Your task to perform on an android device: Show me popular games on the Play Store Image 0: 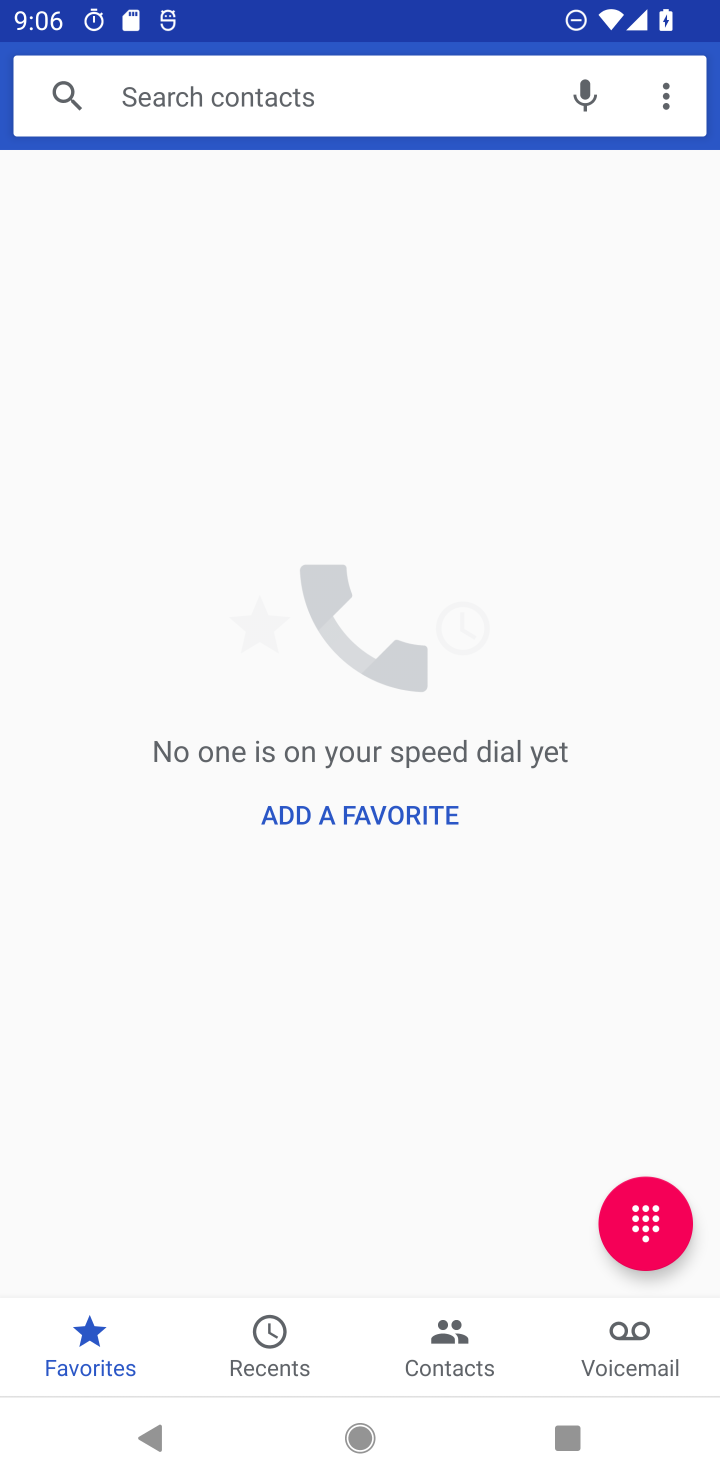
Step 0: press home button
Your task to perform on an android device: Show me popular games on the Play Store Image 1: 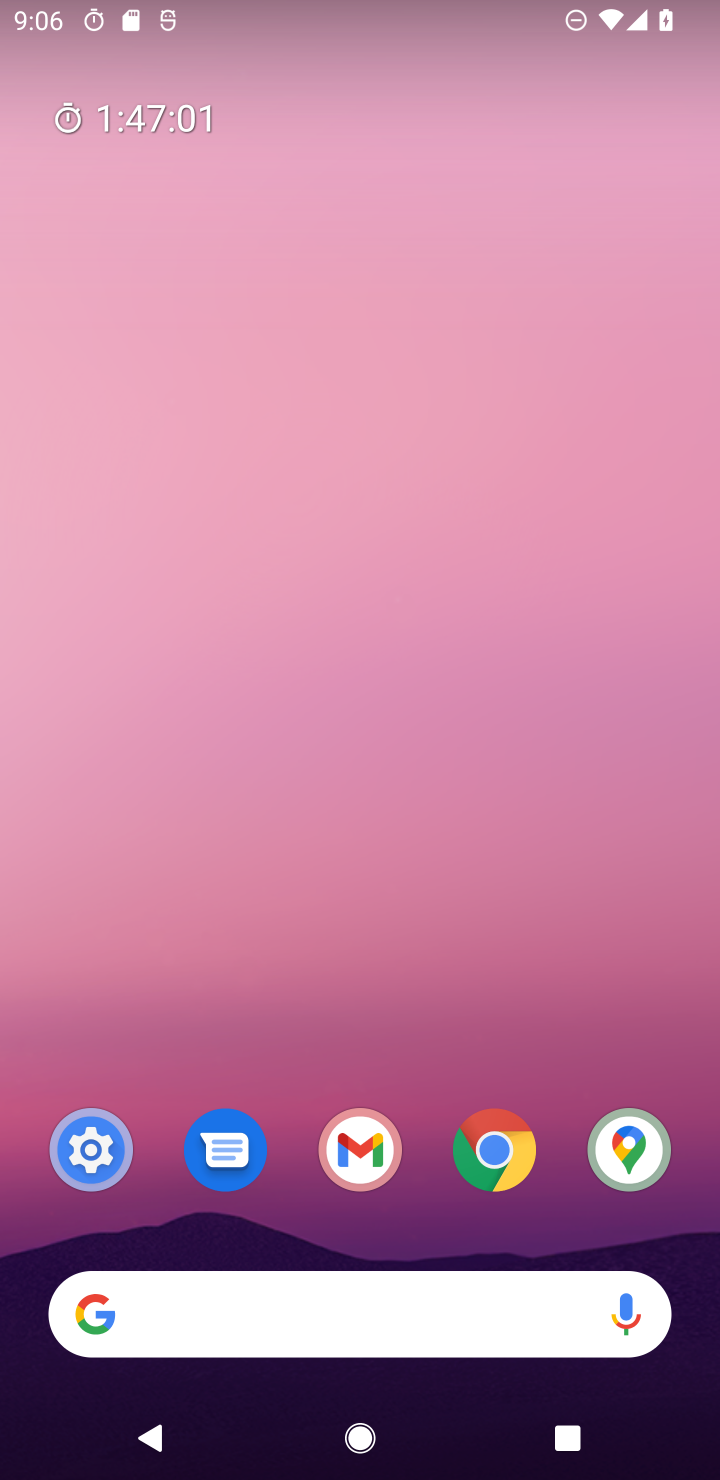
Step 1: drag from (335, 1311) to (608, 33)
Your task to perform on an android device: Show me popular games on the Play Store Image 2: 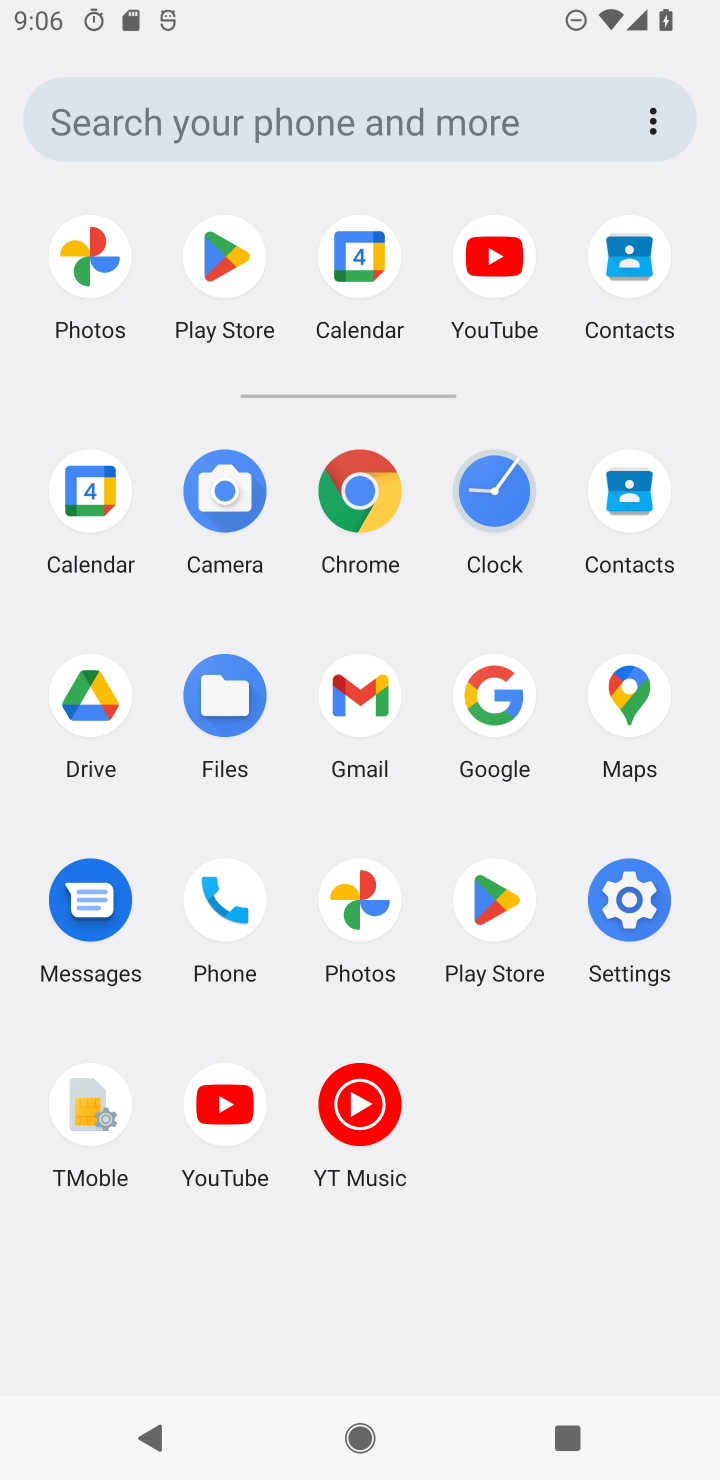
Step 2: click (505, 885)
Your task to perform on an android device: Show me popular games on the Play Store Image 3: 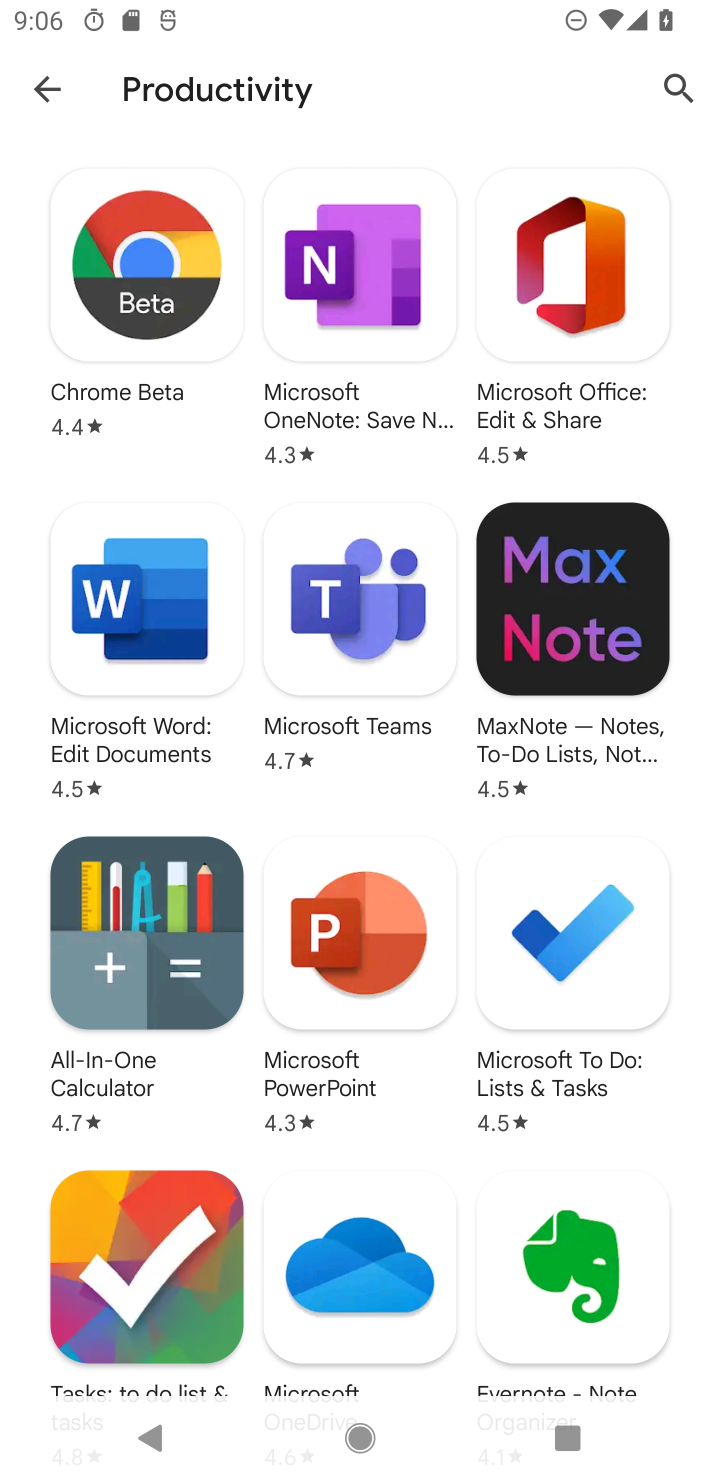
Step 3: press back button
Your task to perform on an android device: Show me popular games on the Play Store Image 4: 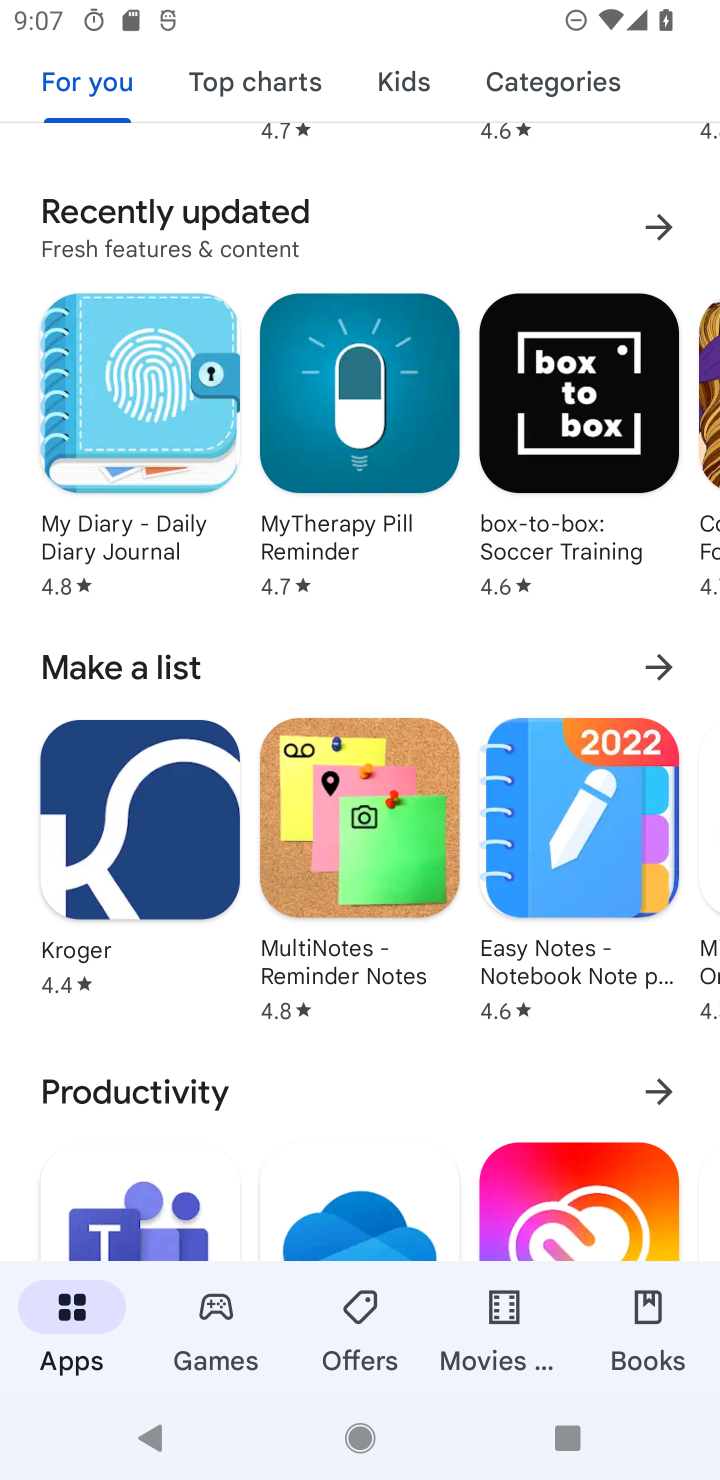
Step 4: click (194, 1302)
Your task to perform on an android device: Show me popular games on the Play Store Image 5: 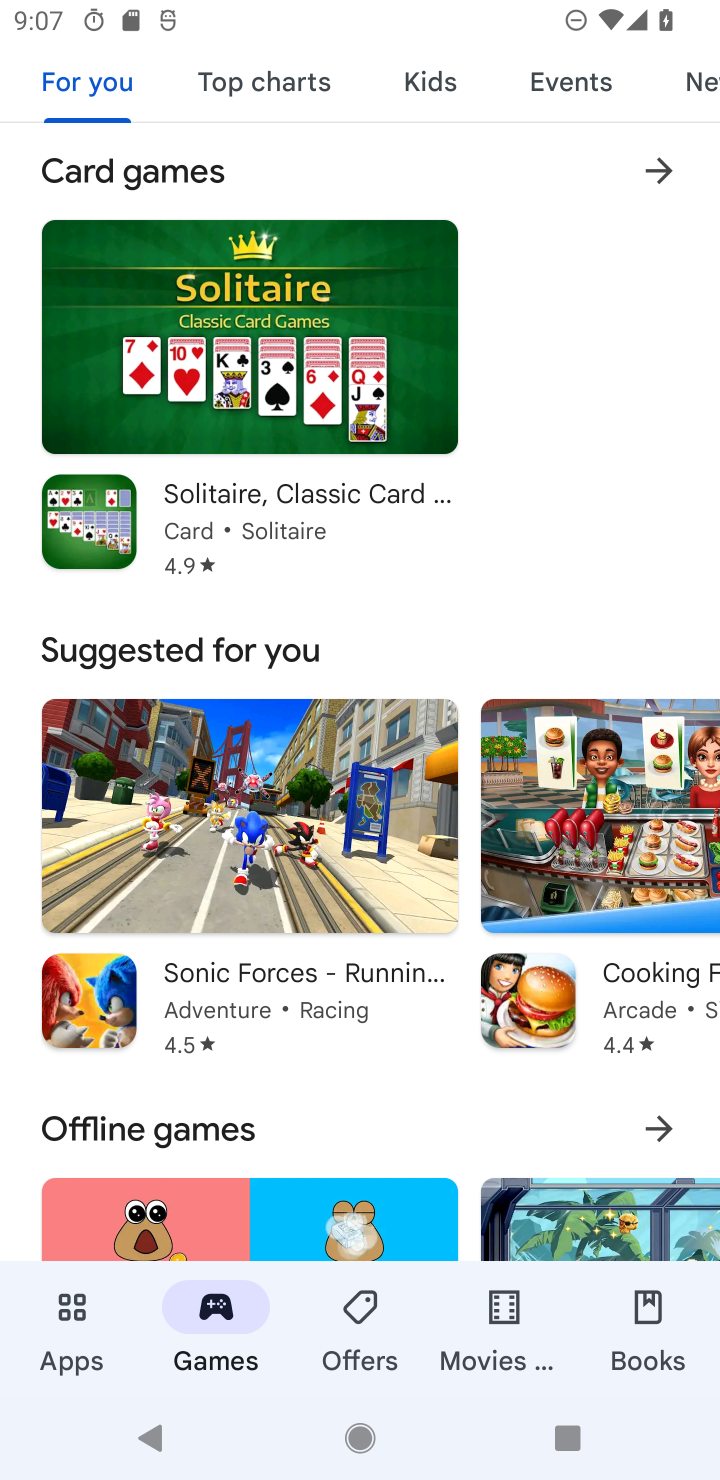
Step 5: task complete